Your task to perform on an android device: open app "Microsoft Outlook" Image 0: 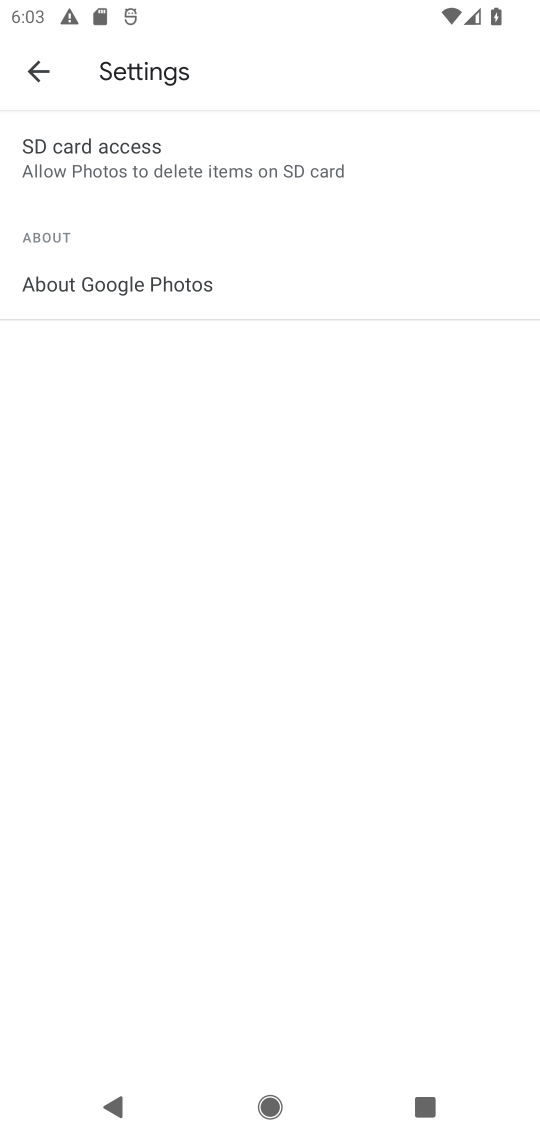
Step 0: press home button
Your task to perform on an android device: open app "Microsoft Outlook" Image 1: 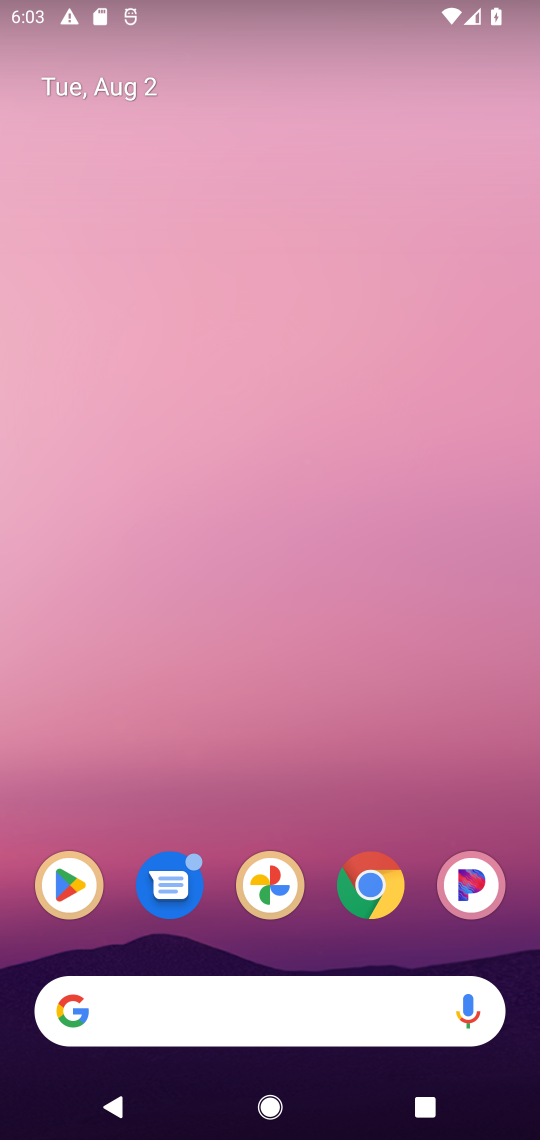
Step 1: drag from (425, 795) to (383, 56)
Your task to perform on an android device: open app "Microsoft Outlook" Image 2: 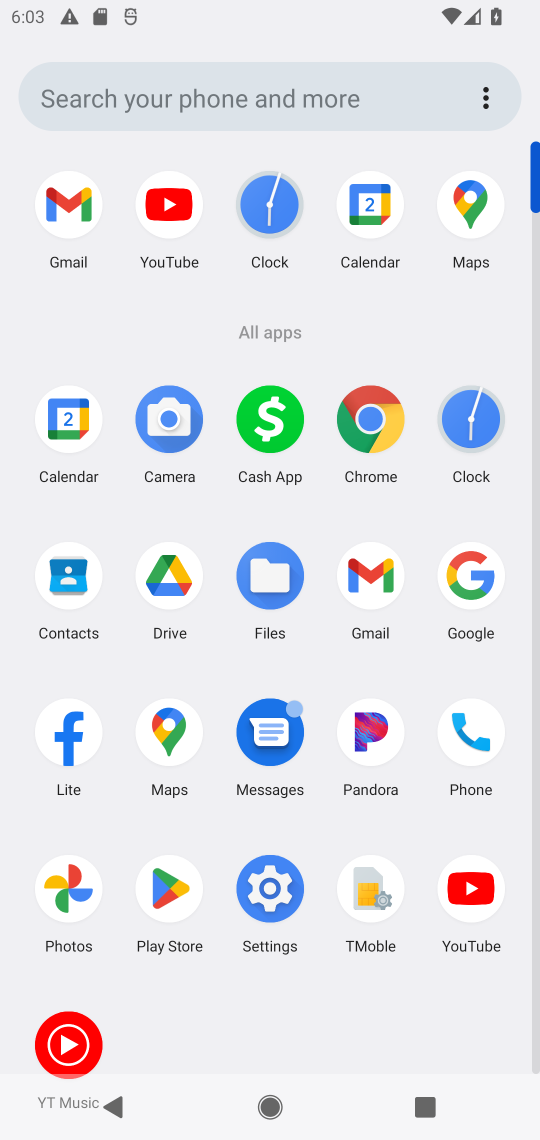
Step 2: click (169, 904)
Your task to perform on an android device: open app "Microsoft Outlook" Image 3: 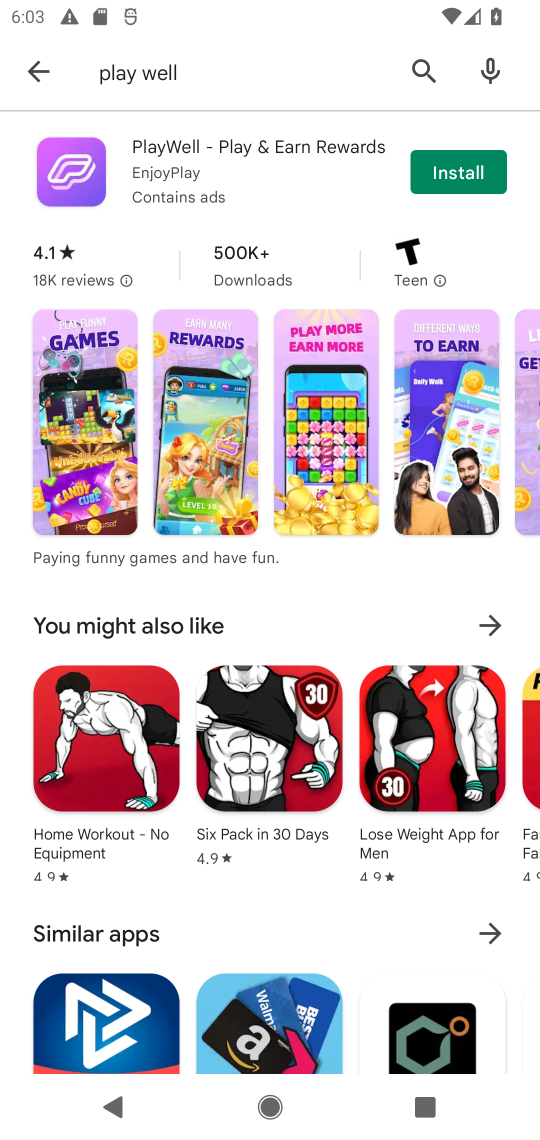
Step 3: click (416, 65)
Your task to perform on an android device: open app "Microsoft Outlook" Image 4: 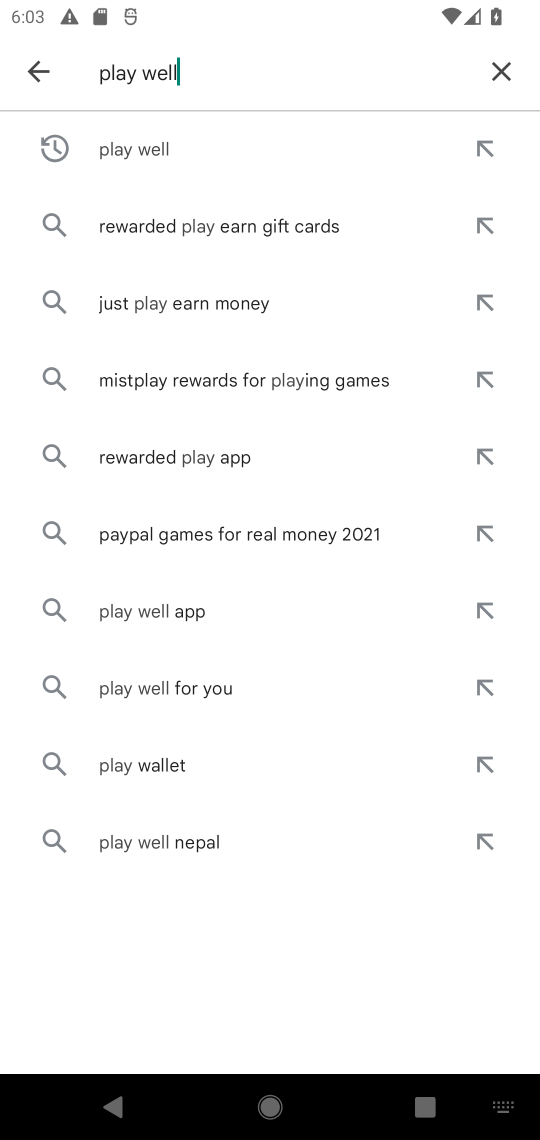
Step 4: click (495, 75)
Your task to perform on an android device: open app "Microsoft Outlook" Image 5: 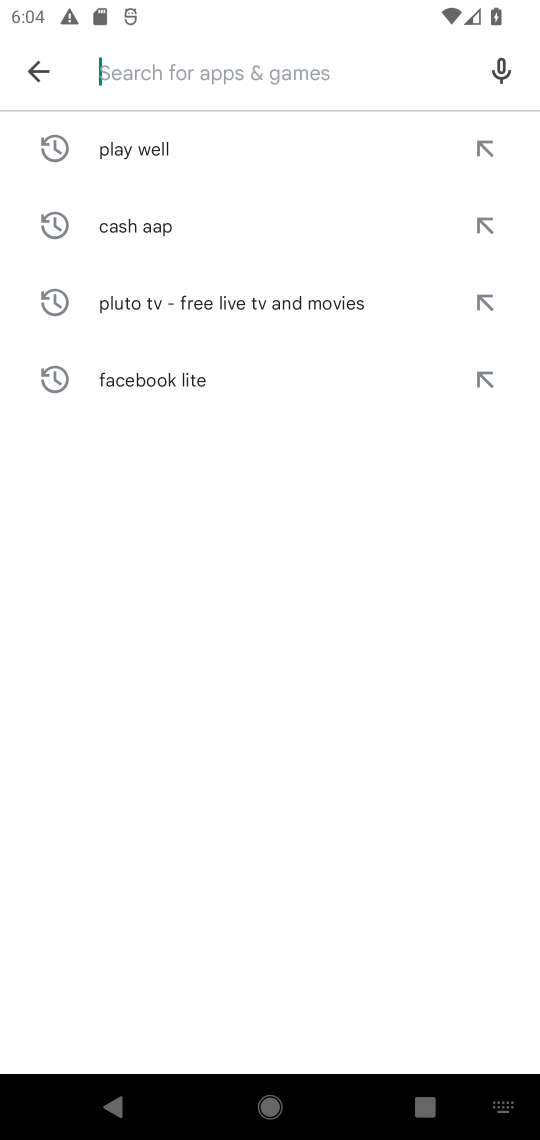
Step 5: type "microsoft outlook"
Your task to perform on an android device: open app "Microsoft Outlook" Image 6: 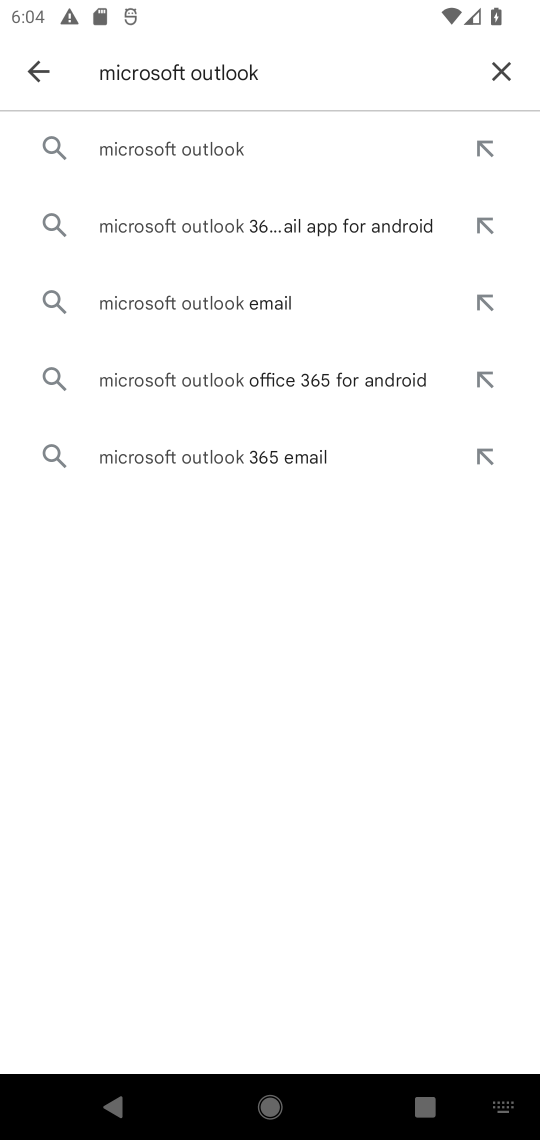
Step 6: click (249, 146)
Your task to perform on an android device: open app "Microsoft Outlook" Image 7: 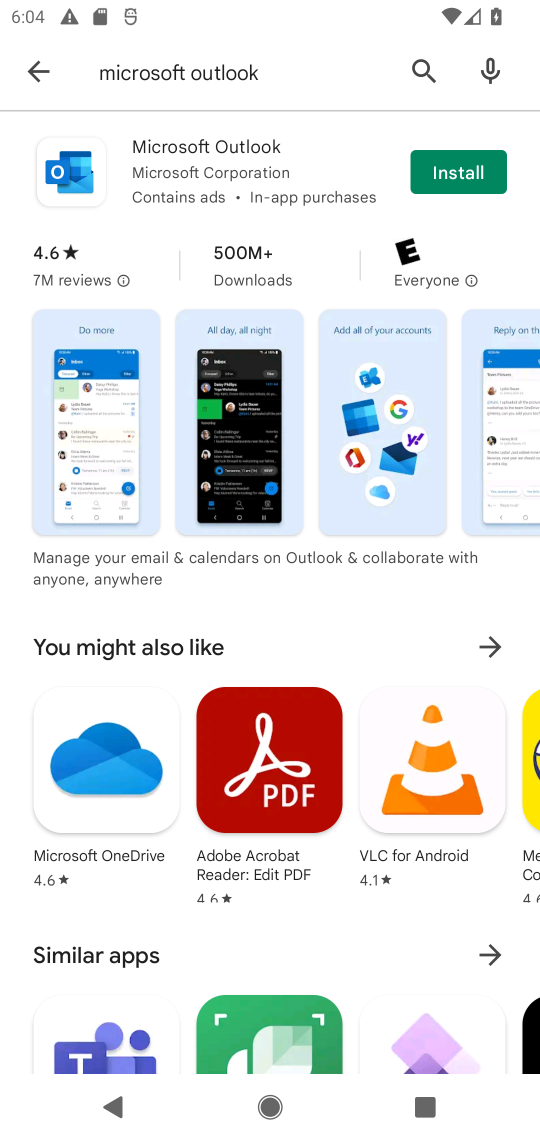
Step 7: task complete